Your task to perform on an android device: Show me productivity apps on the Play Store Image 0: 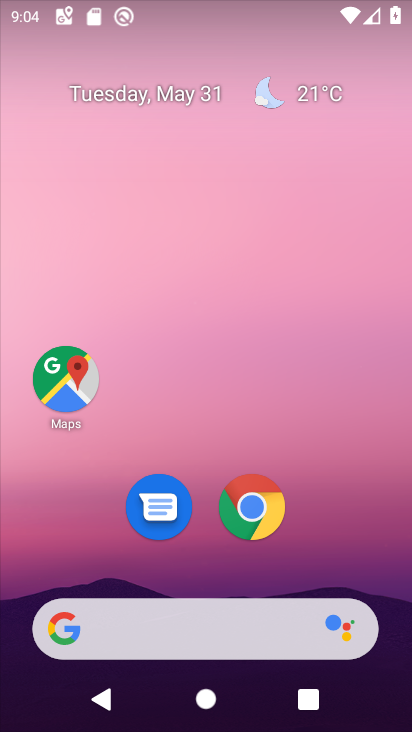
Step 0: click (217, 331)
Your task to perform on an android device: Show me productivity apps on the Play Store Image 1: 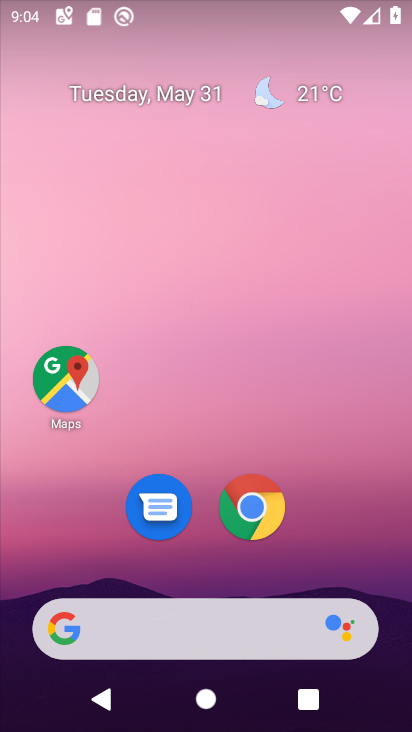
Step 1: drag from (286, 649) to (198, 214)
Your task to perform on an android device: Show me productivity apps on the Play Store Image 2: 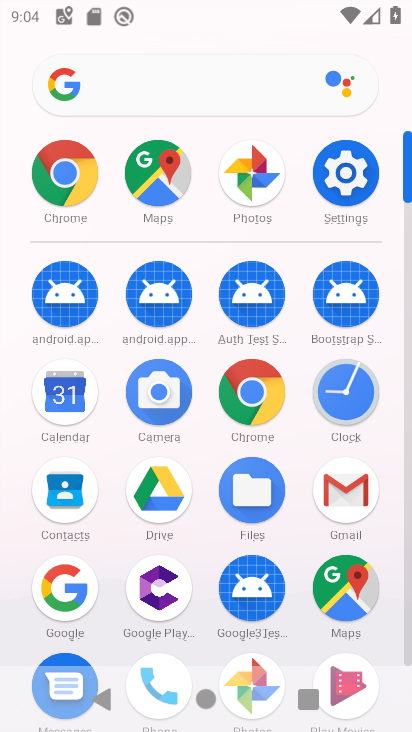
Step 2: drag from (204, 665) to (180, 153)
Your task to perform on an android device: Show me productivity apps on the Play Store Image 3: 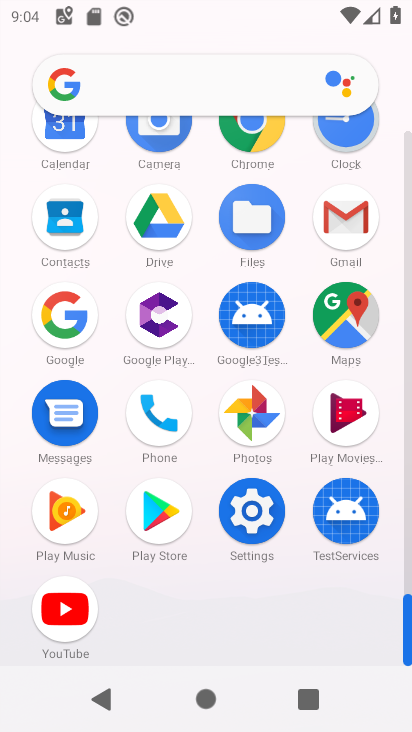
Step 3: click (163, 506)
Your task to perform on an android device: Show me productivity apps on the Play Store Image 4: 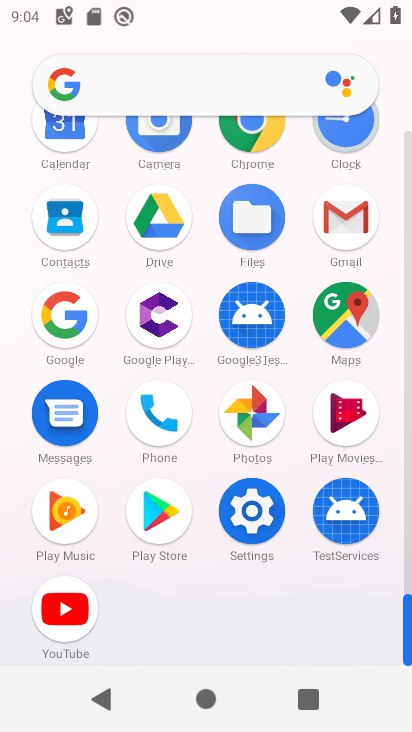
Step 4: click (163, 506)
Your task to perform on an android device: Show me productivity apps on the Play Store Image 5: 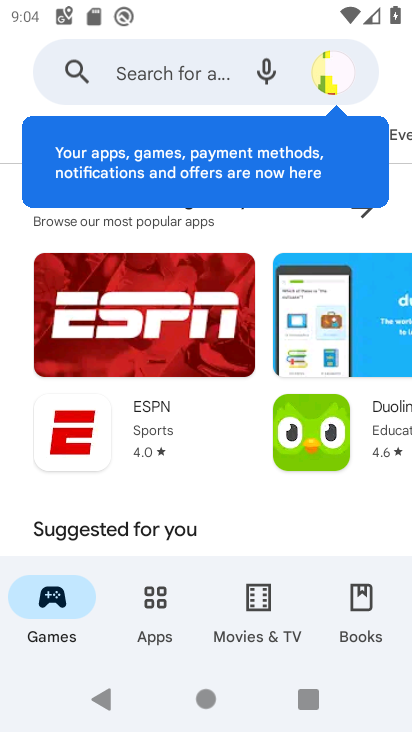
Step 5: press back button
Your task to perform on an android device: Show me productivity apps on the Play Store Image 6: 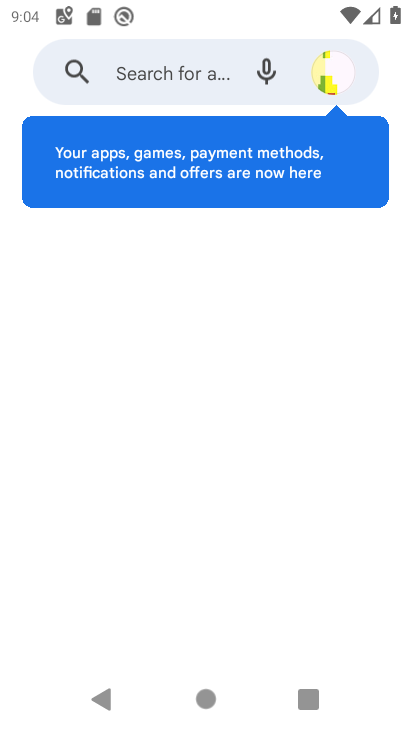
Step 6: press back button
Your task to perform on an android device: Show me productivity apps on the Play Store Image 7: 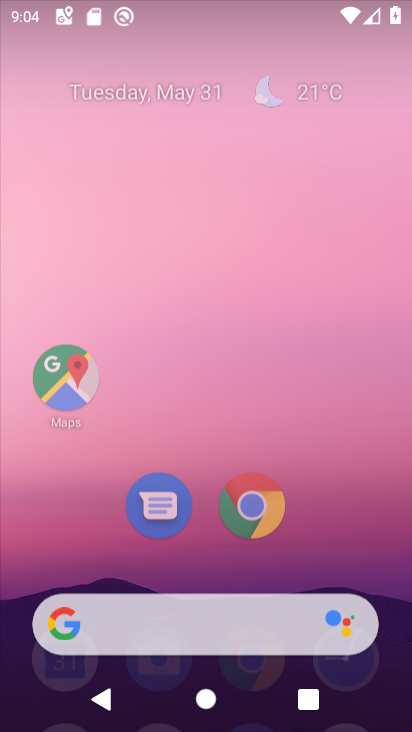
Step 7: press back button
Your task to perform on an android device: Show me productivity apps on the Play Store Image 8: 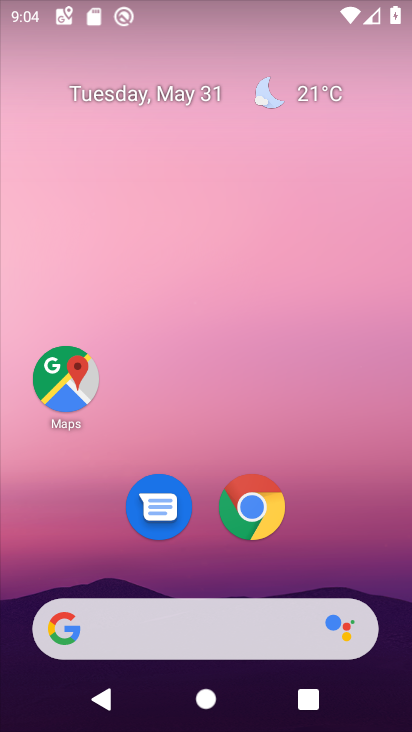
Step 8: drag from (255, 579) to (277, 325)
Your task to perform on an android device: Show me productivity apps on the Play Store Image 9: 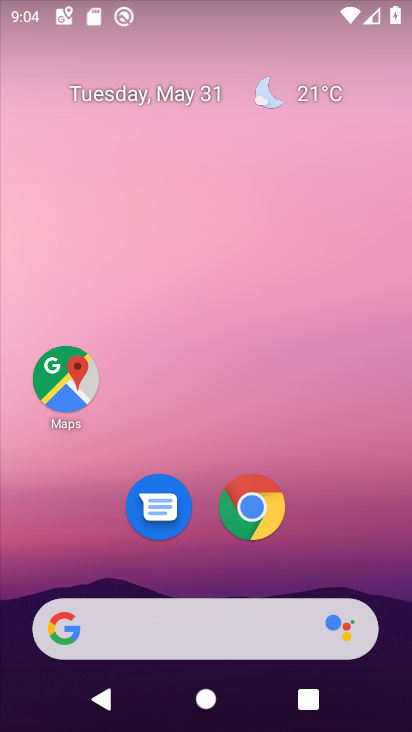
Step 9: drag from (260, 492) to (231, 176)
Your task to perform on an android device: Show me productivity apps on the Play Store Image 10: 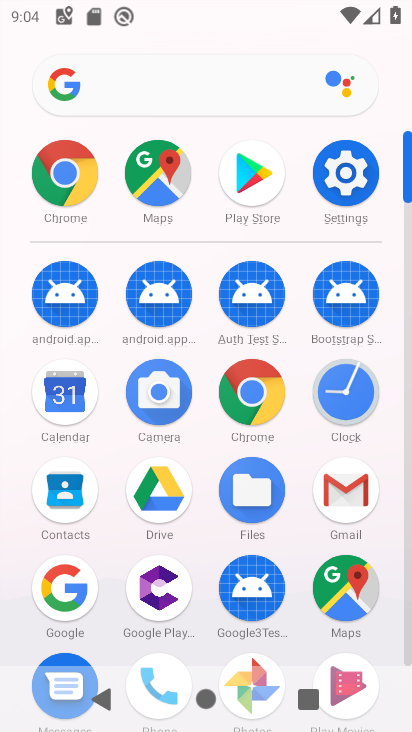
Step 10: drag from (200, 551) to (215, 181)
Your task to perform on an android device: Show me productivity apps on the Play Store Image 11: 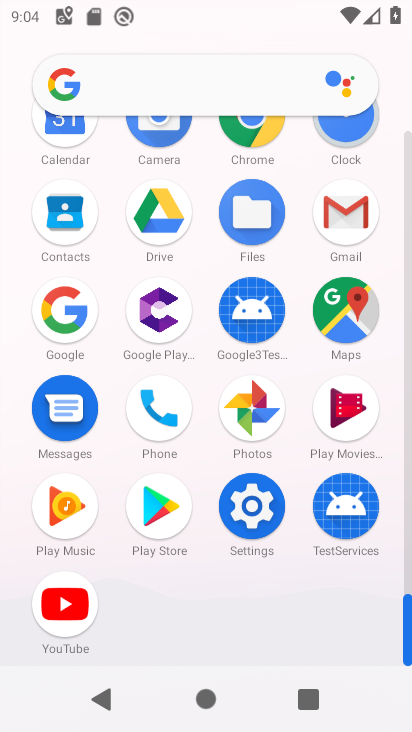
Step 11: drag from (209, 434) to (175, 59)
Your task to perform on an android device: Show me productivity apps on the Play Store Image 12: 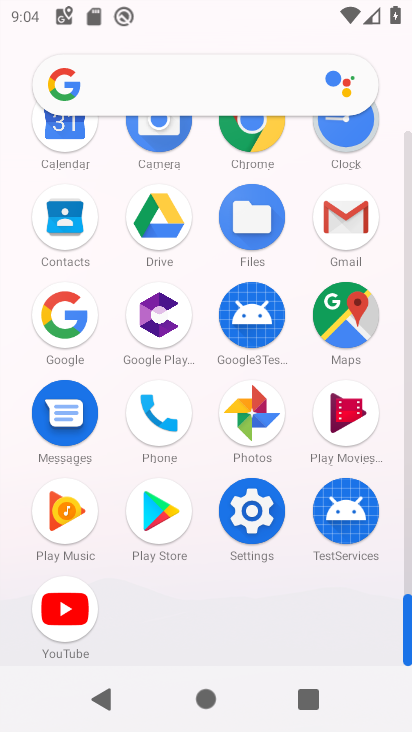
Step 12: click (162, 507)
Your task to perform on an android device: Show me productivity apps on the Play Store Image 13: 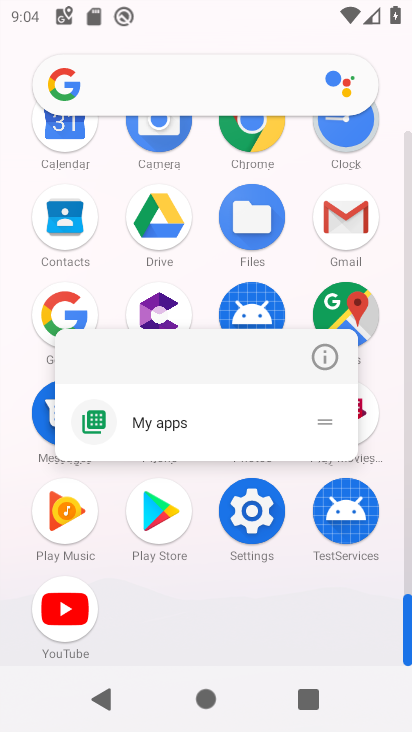
Step 13: click (147, 516)
Your task to perform on an android device: Show me productivity apps on the Play Store Image 14: 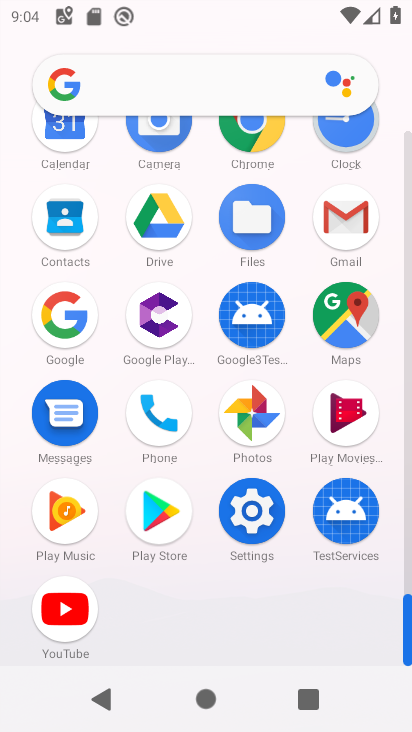
Step 14: click (147, 516)
Your task to perform on an android device: Show me productivity apps on the Play Store Image 15: 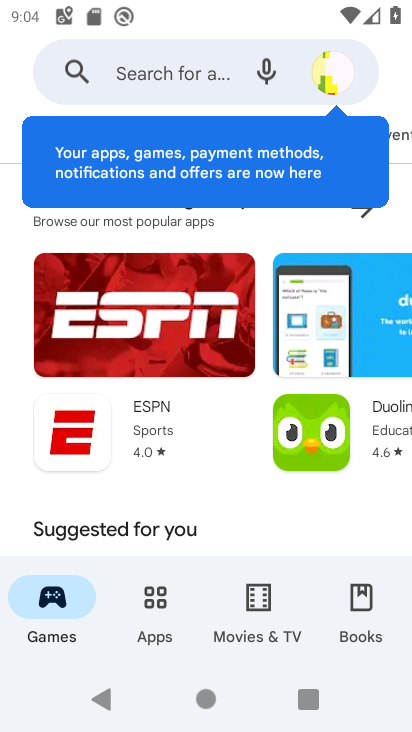
Step 15: click (129, 69)
Your task to perform on an android device: Show me productivity apps on the Play Store Image 16: 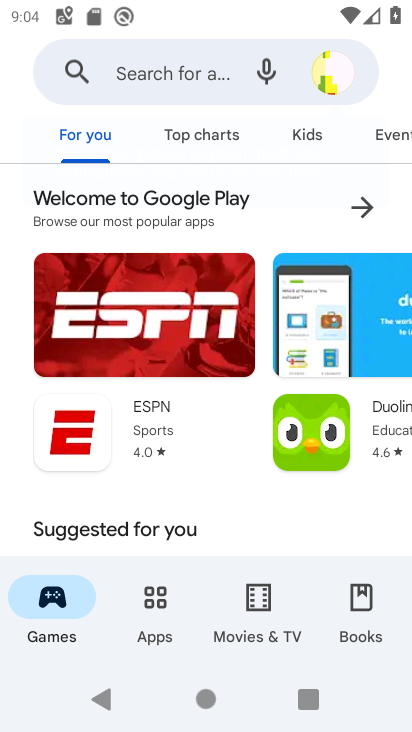
Step 16: click (129, 69)
Your task to perform on an android device: Show me productivity apps on the Play Store Image 17: 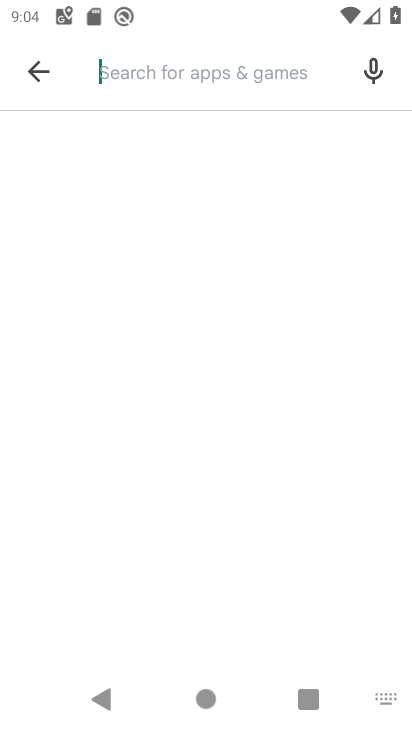
Step 17: click (128, 68)
Your task to perform on an android device: Show me productivity apps on the Play Store Image 18: 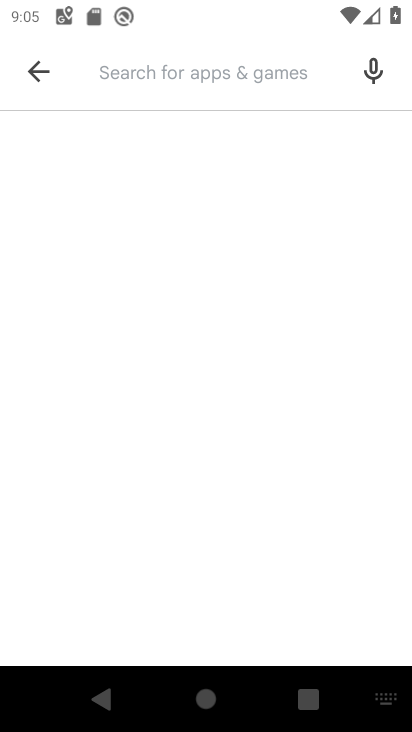
Step 18: type "productivity apps"
Your task to perform on an android device: Show me productivity apps on the Play Store Image 19: 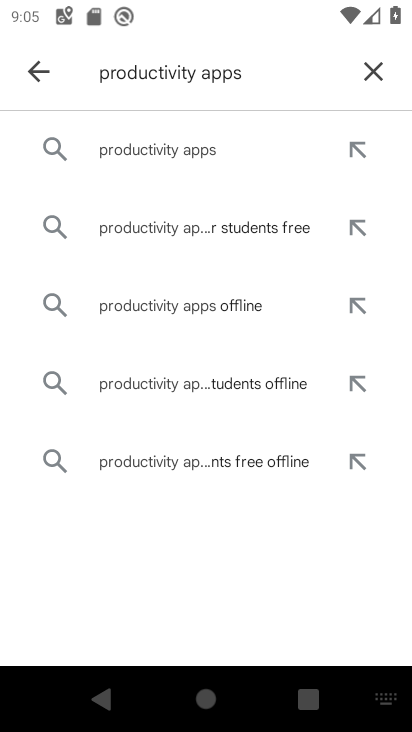
Step 19: click (176, 146)
Your task to perform on an android device: Show me productivity apps on the Play Store Image 20: 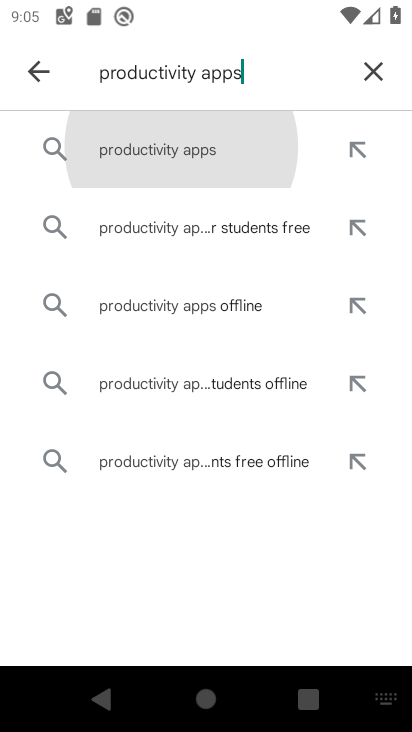
Step 20: click (183, 150)
Your task to perform on an android device: Show me productivity apps on the Play Store Image 21: 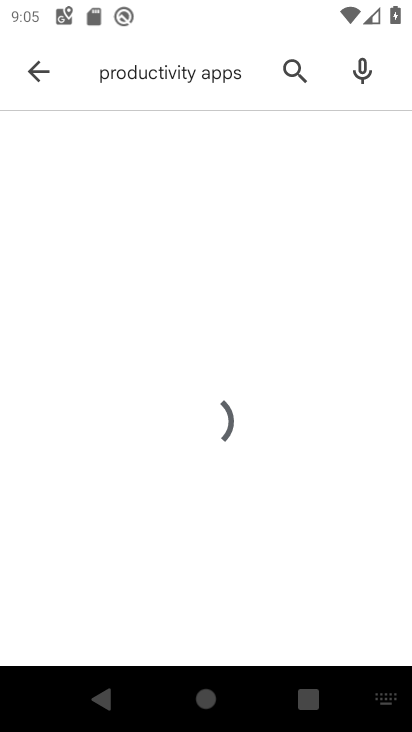
Step 21: click (182, 152)
Your task to perform on an android device: Show me productivity apps on the Play Store Image 22: 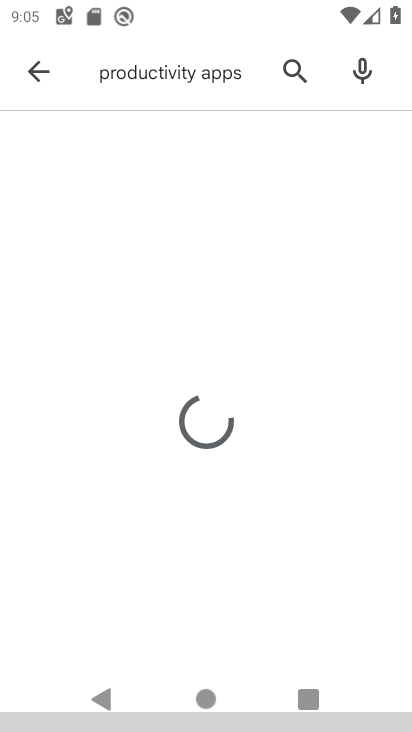
Step 22: click (182, 152)
Your task to perform on an android device: Show me productivity apps on the Play Store Image 23: 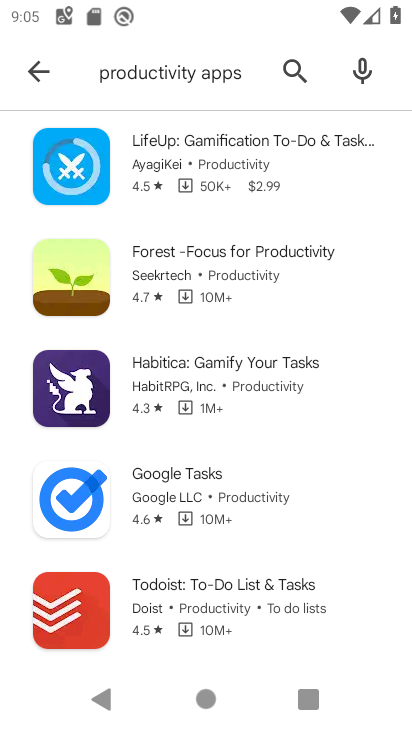
Step 23: click (188, 156)
Your task to perform on an android device: Show me productivity apps on the Play Store Image 24: 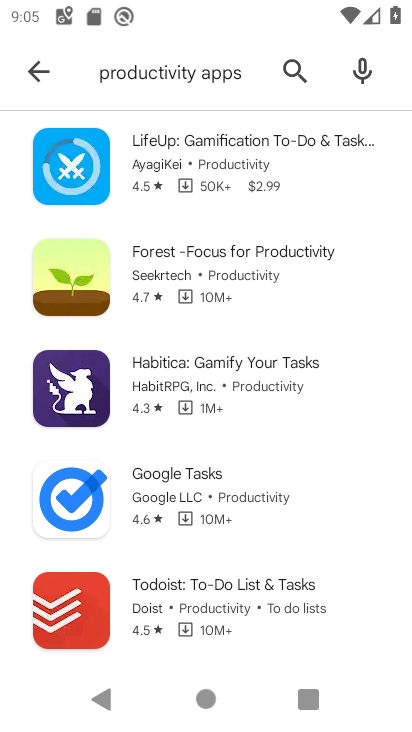
Step 24: click (195, 156)
Your task to perform on an android device: Show me productivity apps on the Play Store Image 25: 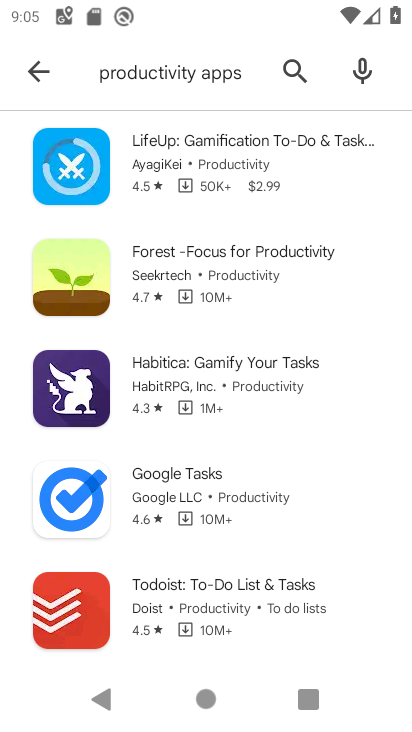
Step 25: click (197, 156)
Your task to perform on an android device: Show me productivity apps on the Play Store Image 26: 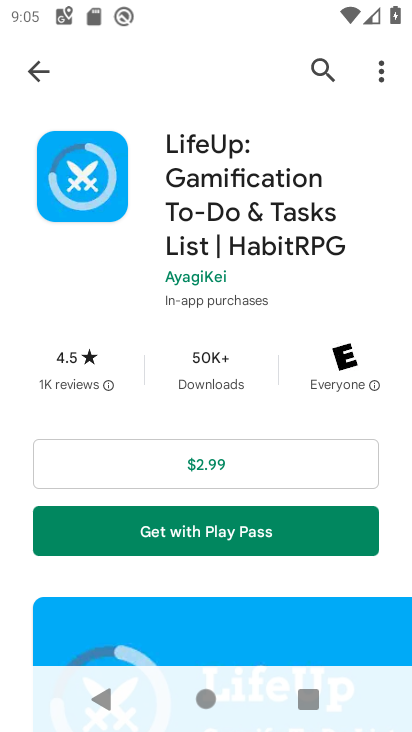
Step 26: drag from (159, 453) to (138, 65)
Your task to perform on an android device: Show me productivity apps on the Play Store Image 27: 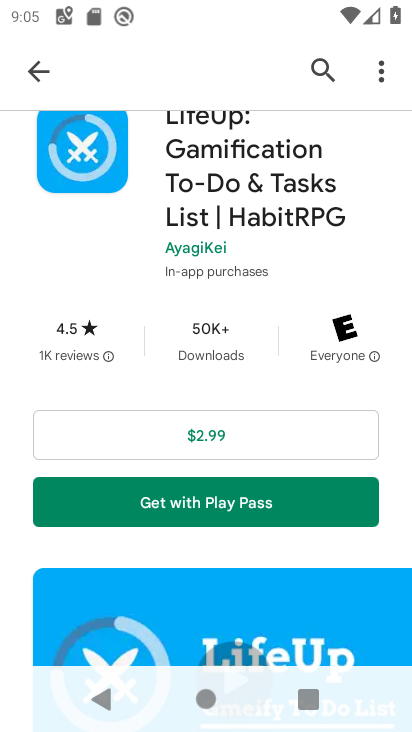
Step 27: click (46, 61)
Your task to perform on an android device: Show me productivity apps on the Play Store Image 28: 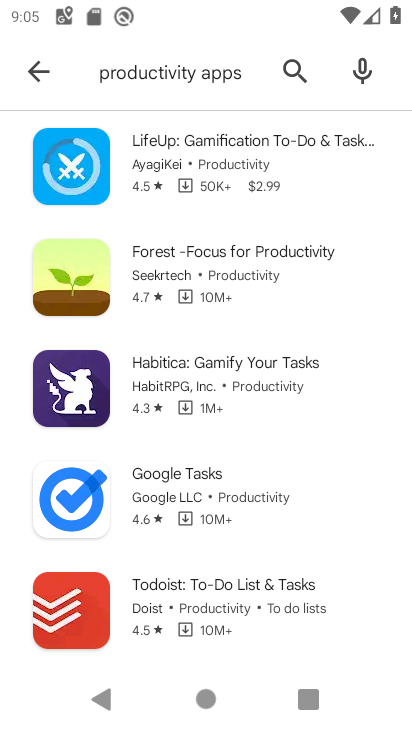
Step 28: task complete